Your task to perform on an android device: Open Google Maps Image 0: 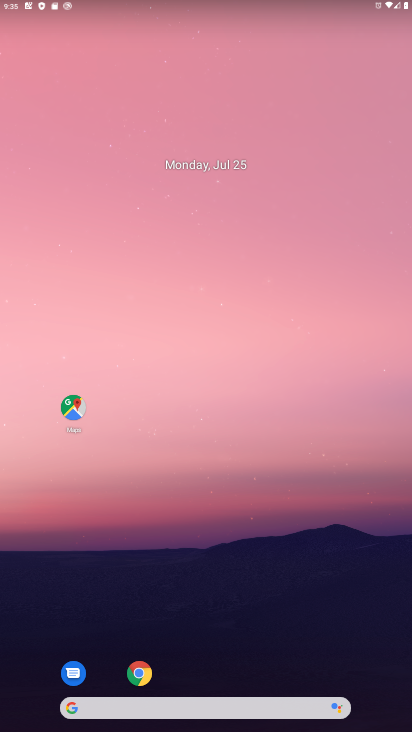
Step 0: drag from (221, 669) to (194, 66)
Your task to perform on an android device: Open Google Maps Image 1: 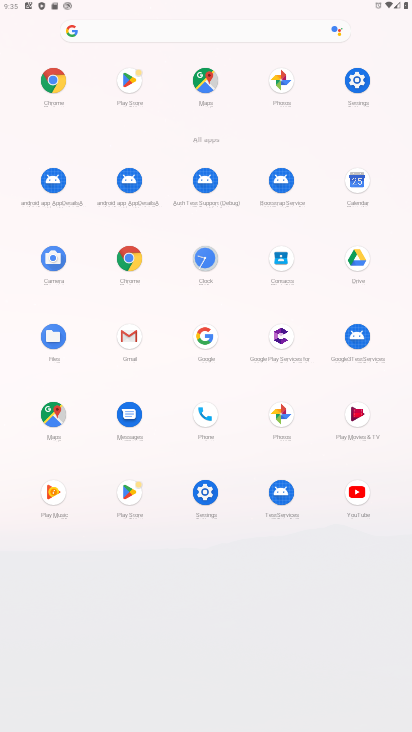
Step 1: click (57, 421)
Your task to perform on an android device: Open Google Maps Image 2: 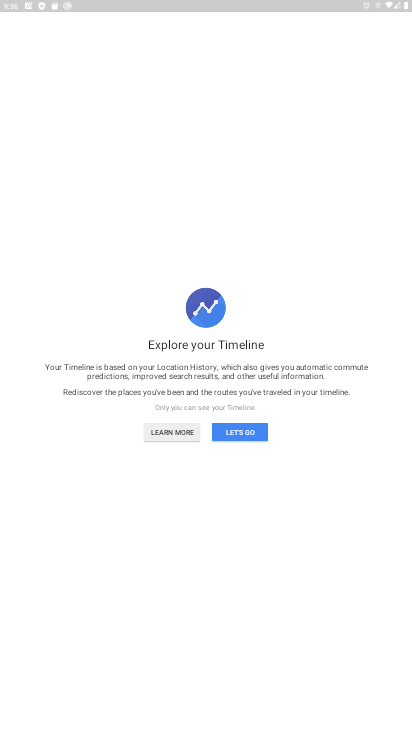
Step 2: click (208, 433)
Your task to perform on an android device: Open Google Maps Image 3: 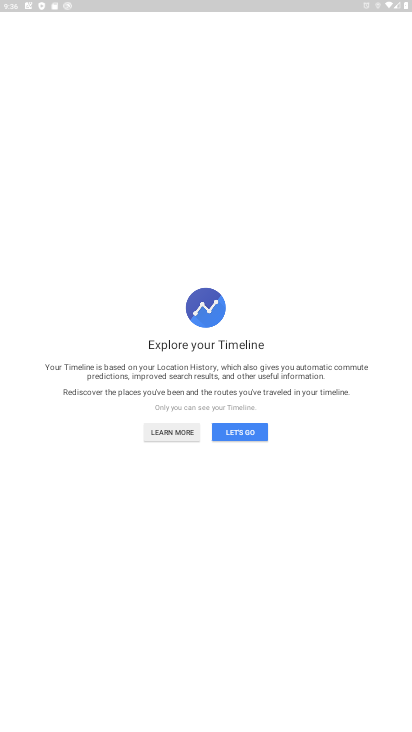
Step 3: click (227, 428)
Your task to perform on an android device: Open Google Maps Image 4: 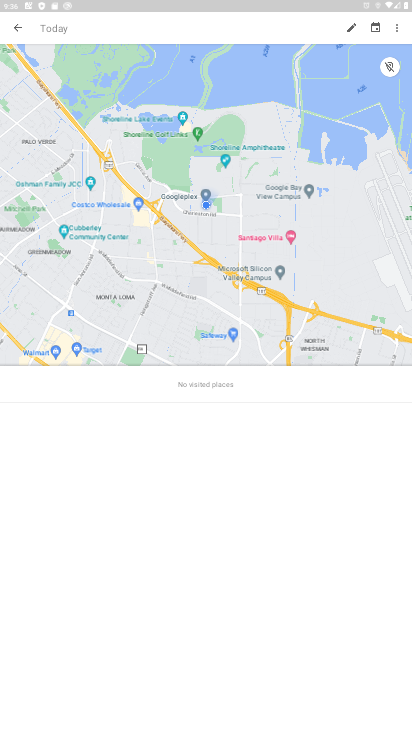
Step 4: click (16, 29)
Your task to perform on an android device: Open Google Maps Image 5: 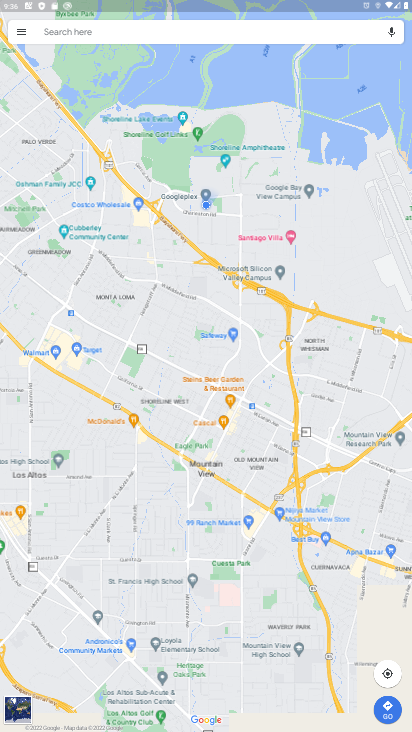
Step 5: task complete